Your task to perform on an android device: check google app version Image 0: 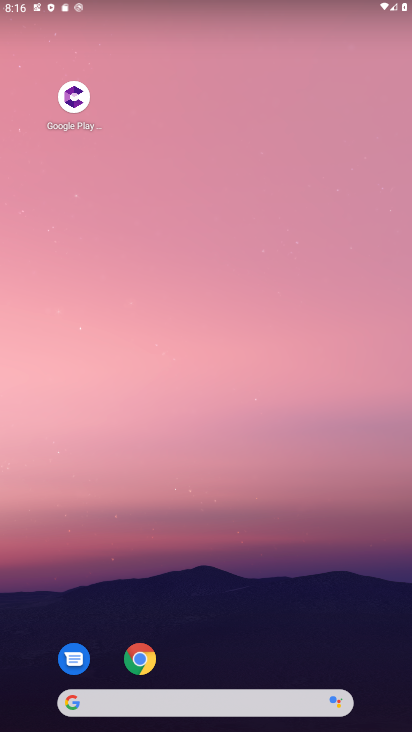
Step 0: drag from (194, 651) to (220, 158)
Your task to perform on an android device: check google app version Image 1: 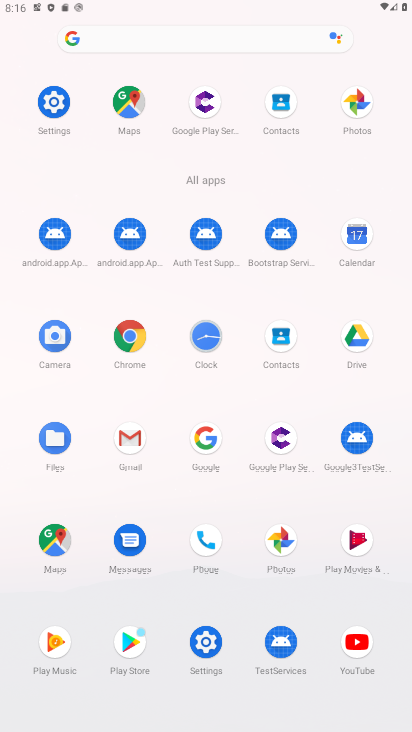
Step 1: click (213, 453)
Your task to perform on an android device: check google app version Image 2: 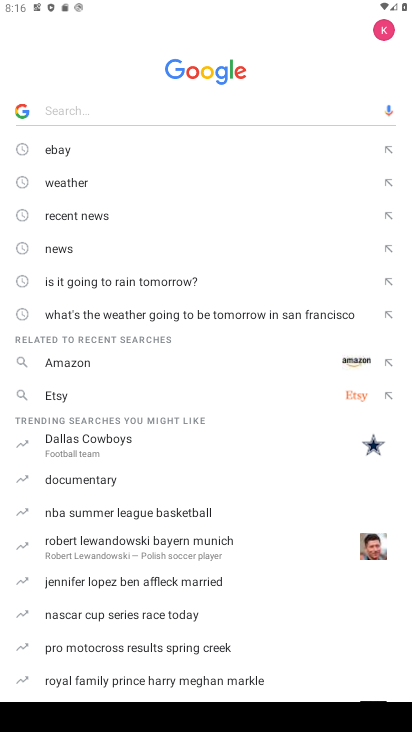
Step 2: click (384, 28)
Your task to perform on an android device: check google app version Image 3: 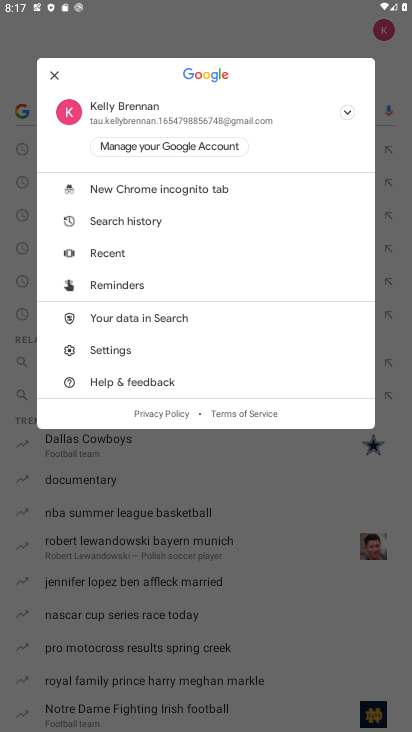
Step 3: click (106, 344)
Your task to perform on an android device: check google app version Image 4: 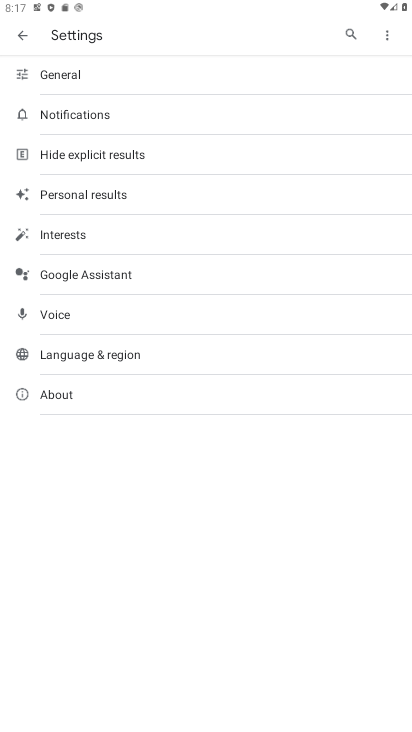
Step 4: click (89, 409)
Your task to perform on an android device: check google app version Image 5: 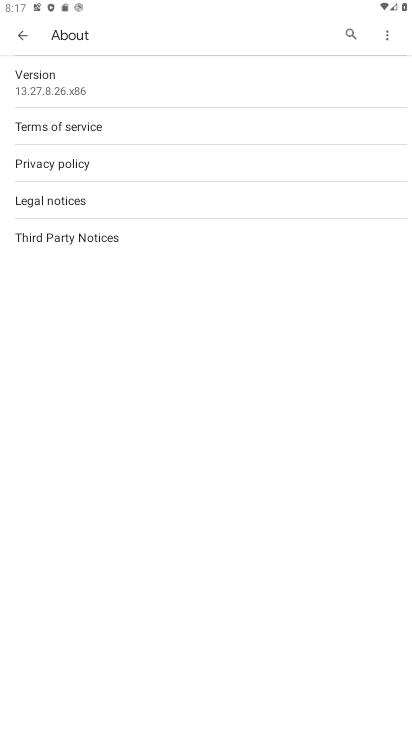
Step 5: click (81, 97)
Your task to perform on an android device: check google app version Image 6: 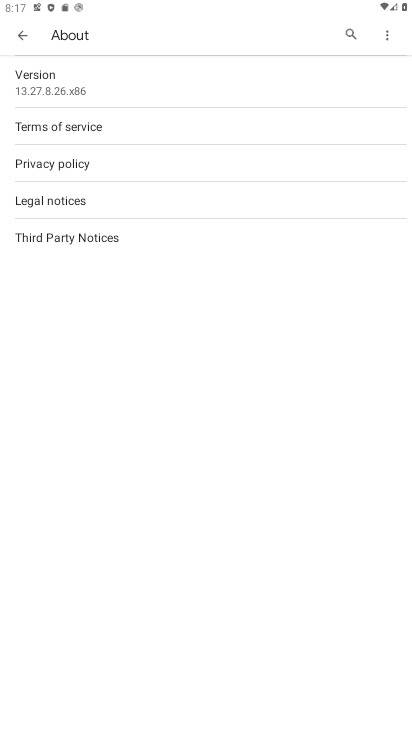
Step 6: click (111, 88)
Your task to perform on an android device: check google app version Image 7: 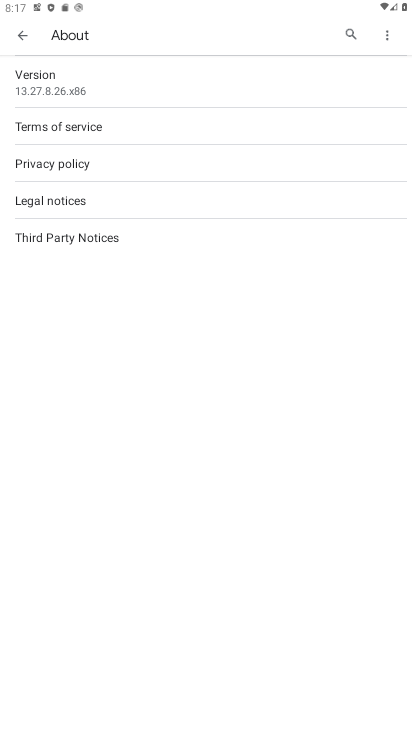
Step 7: task complete